Your task to perform on an android device: change the clock display to digital Image 0: 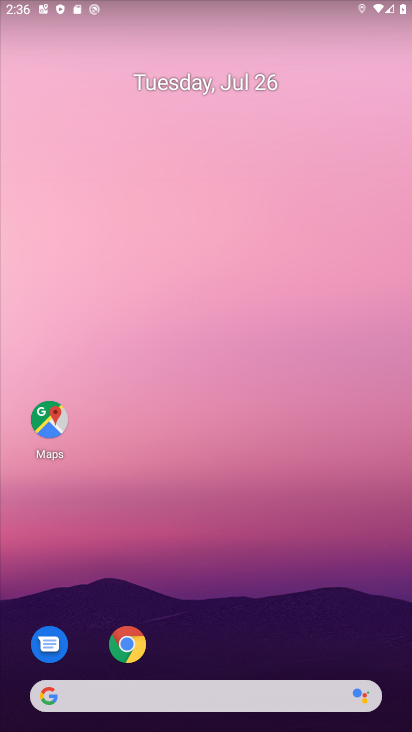
Step 0: press home button
Your task to perform on an android device: change the clock display to digital Image 1: 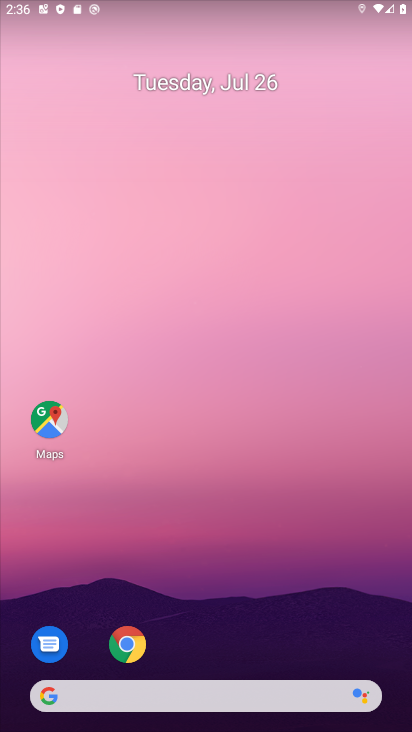
Step 1: drag from (285, 620) to (300, 43)
Your task to perform on an android device: change the clock display to digital Image 2: 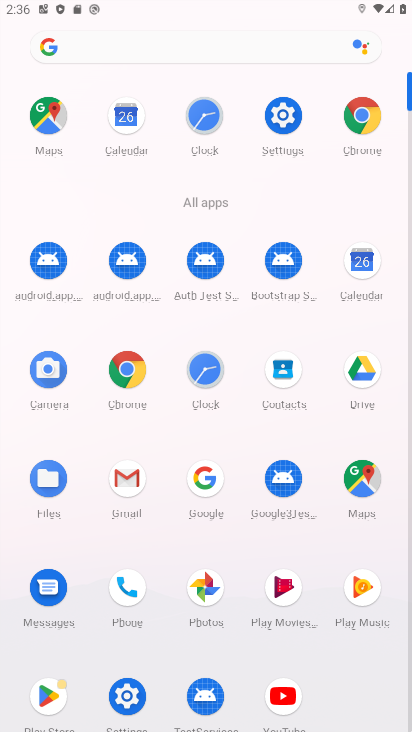
Step 2: click (212, 361)
Your task to perform on an android device: change the clock display to digital Image 3: 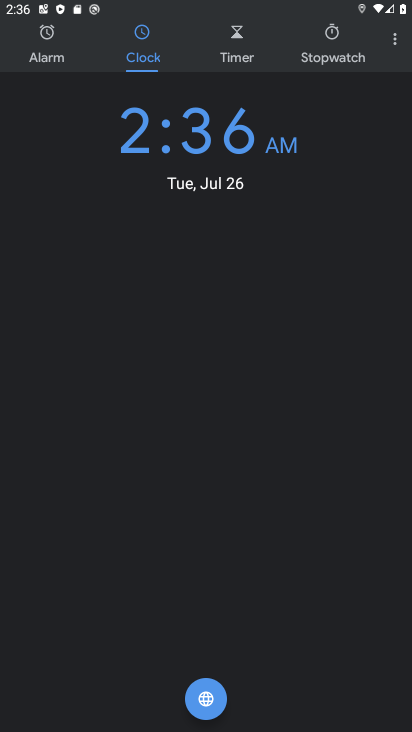
Step 3: click (389, 44)
Your task to perform on an android device: change the clock display to digital Image 4: 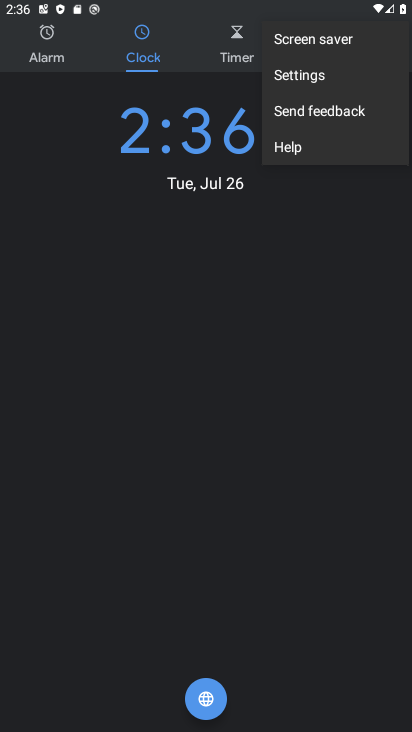
Step 4: click (310, 73)
Your task to perform on an android device: change the clock display to digital Image 5: 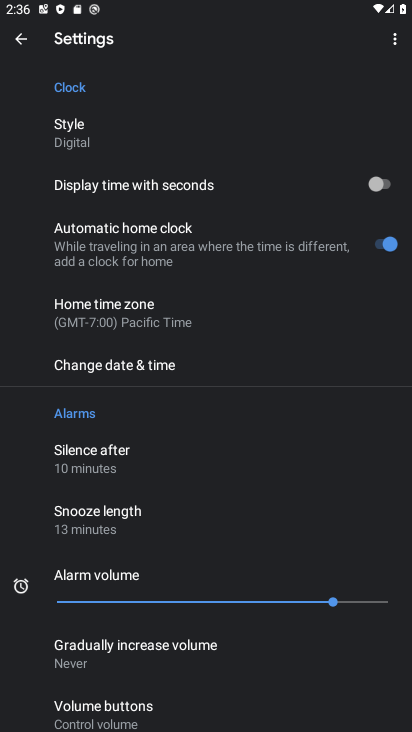
Step 5: task complete